Your task to perform on an android device: What's the time? Image 0: 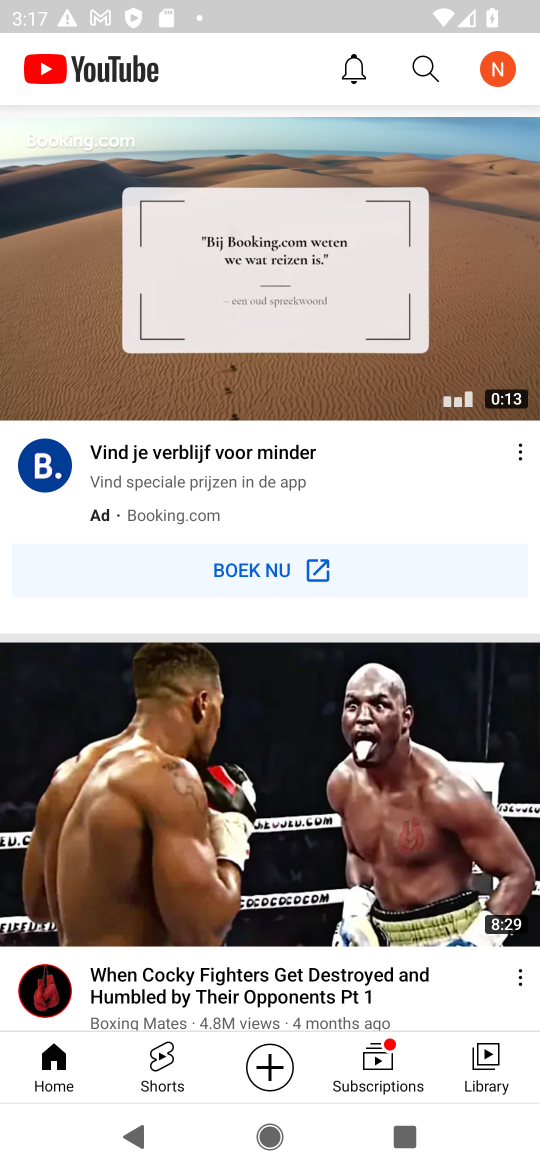
Step 0: press home button
Your task to perform on an android device: What's the time? Image 1: 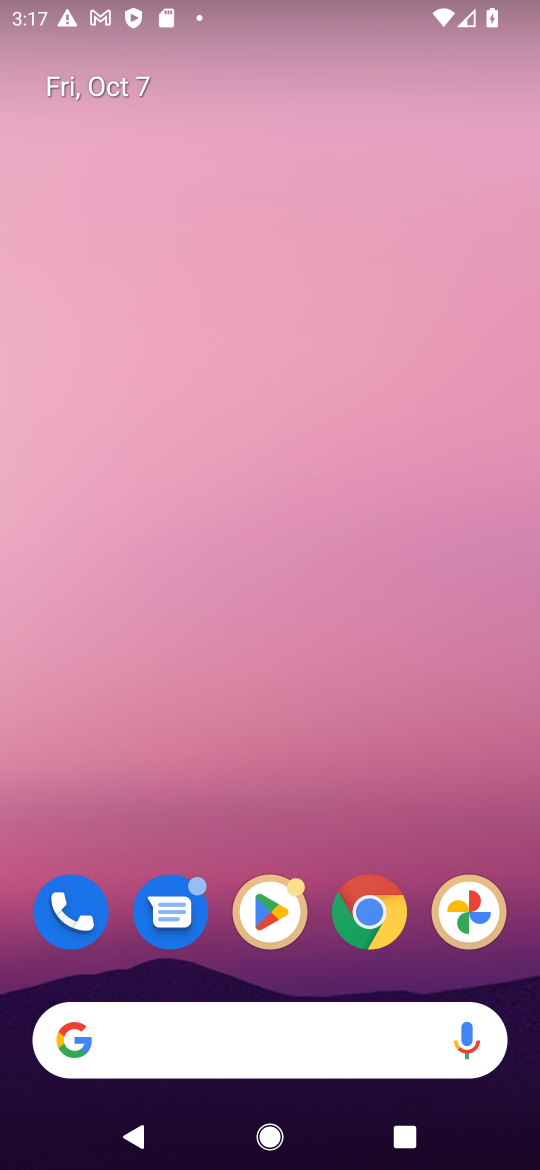
Step 1: drag from (125, 946) to (192, 416)
Your task to perform on an android device: What's the time? Image 2: 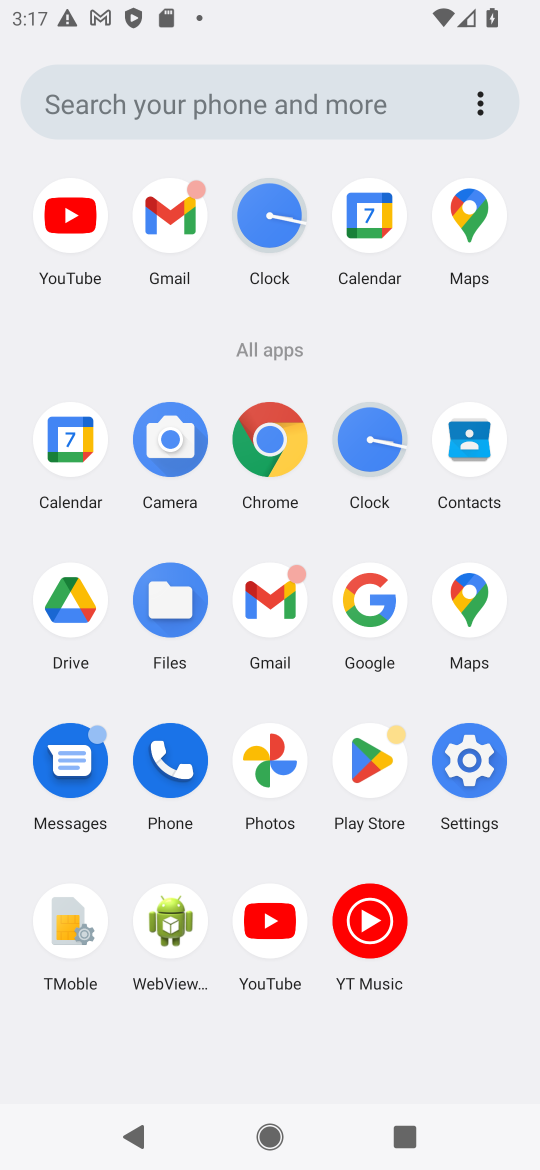
Step 2: click (346, 588)
Your task to perform on an android device: What's the time? Image 3: 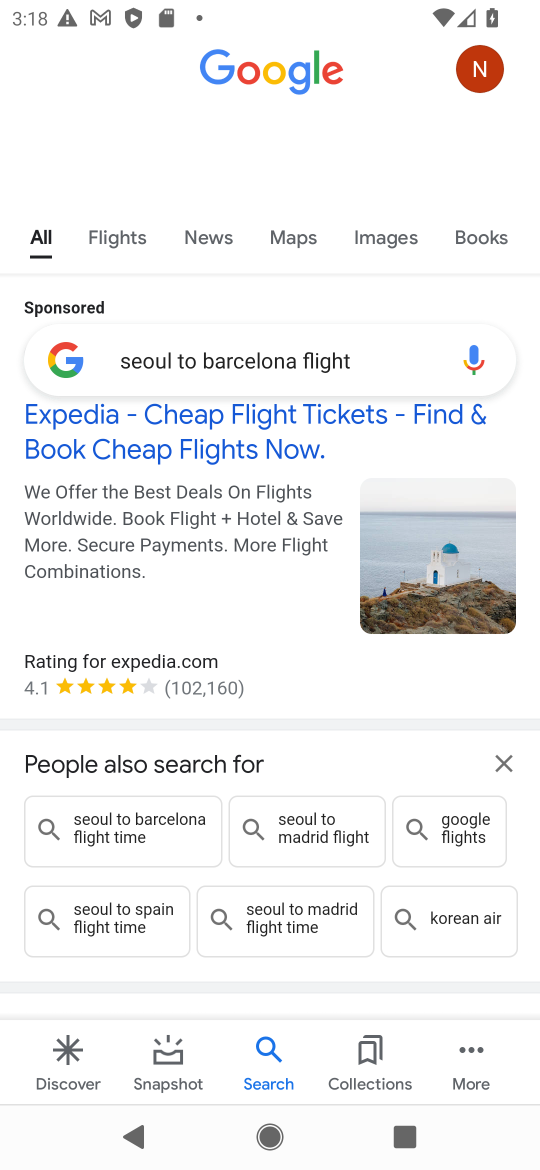
Step 3: click (374, 343)
Your task to perform on an android device: What's the time? Image 4: 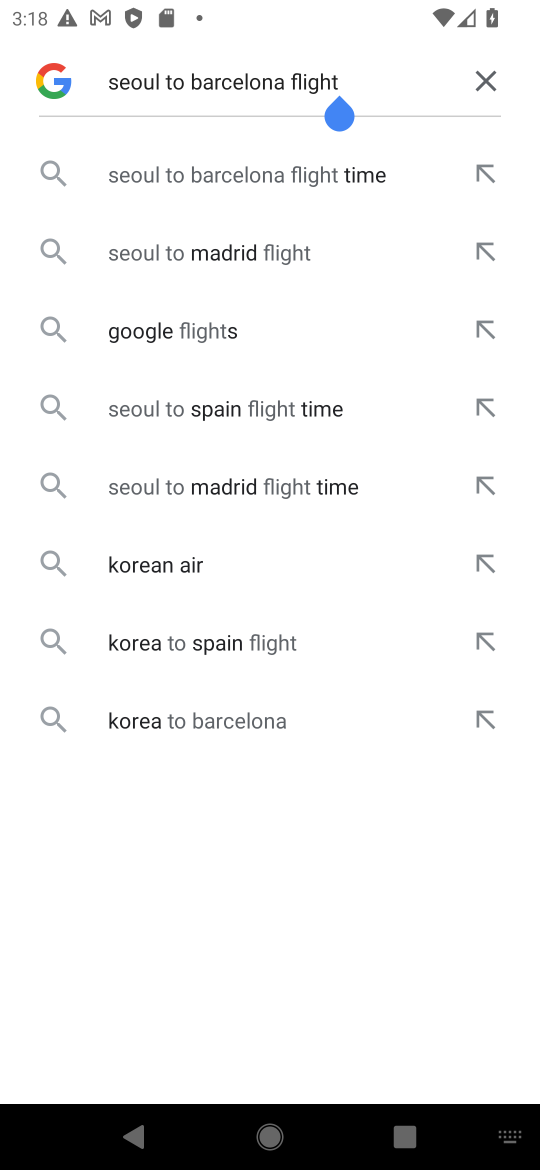
Step 4: click (489, 72)
Your task to perform on an android device: What's the time? Image 5: 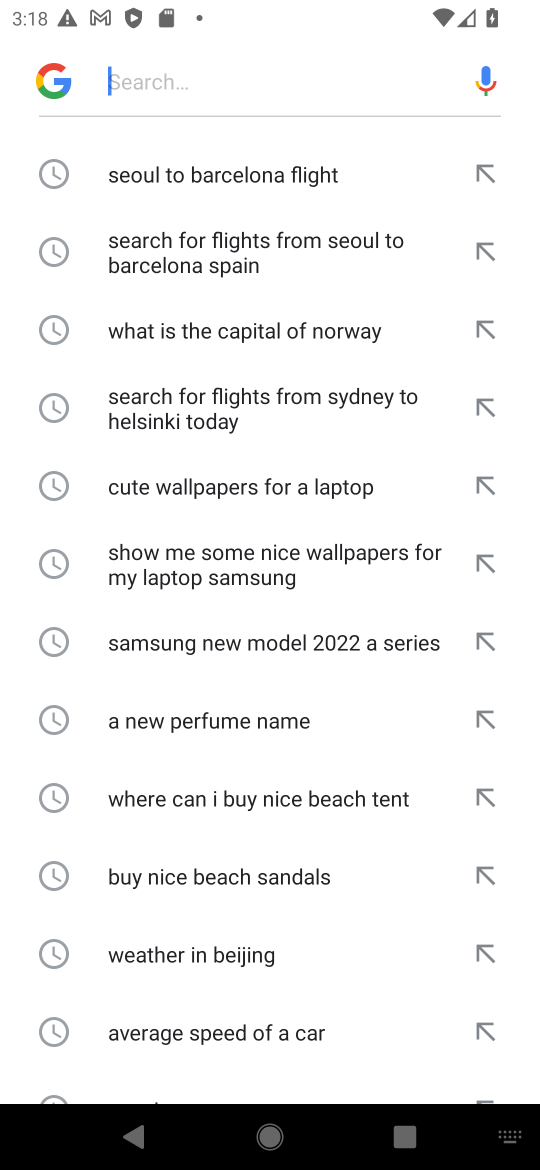
Step 5: click (197, 59)
Your task to perform on an android device: What's the time? Image 6: 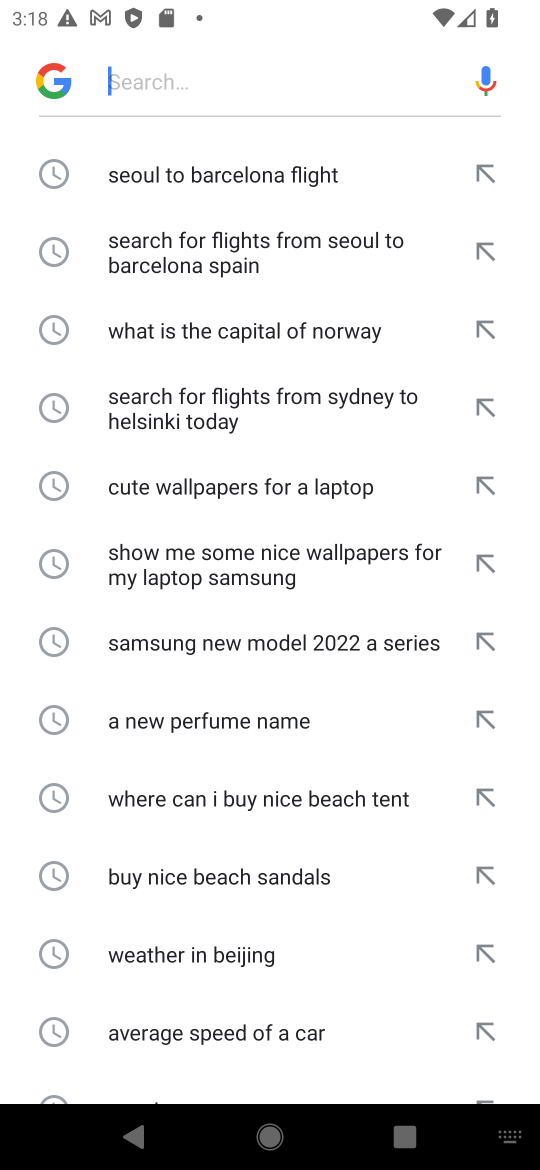
Step 6: type "What's the time? "
Your task to perform on an android device: What's the time? Image 7: 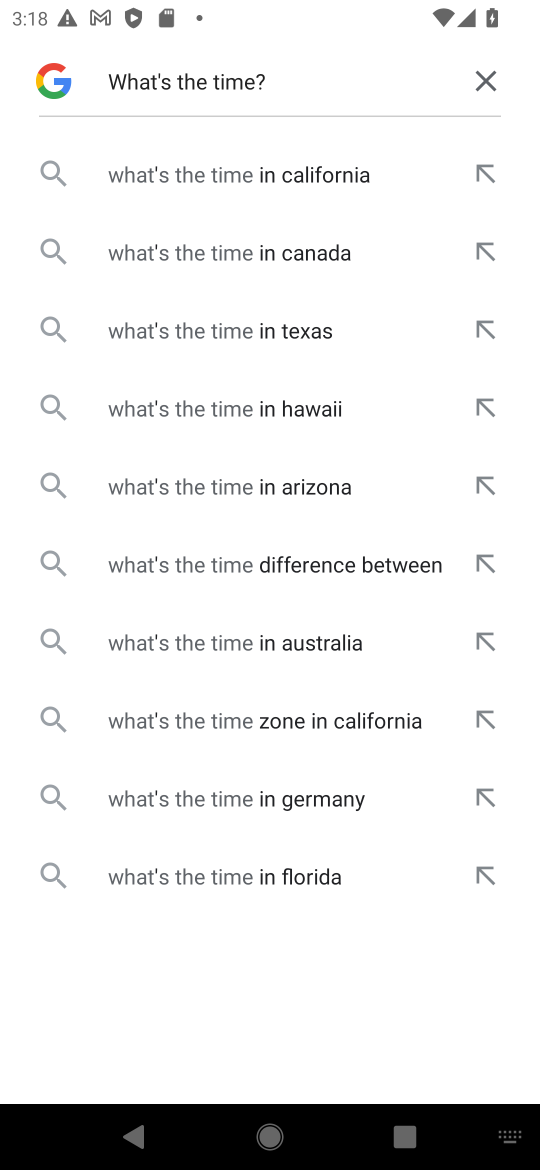
Step 7: press home button
Your task to perform on an android device: What's the time? Image 8: 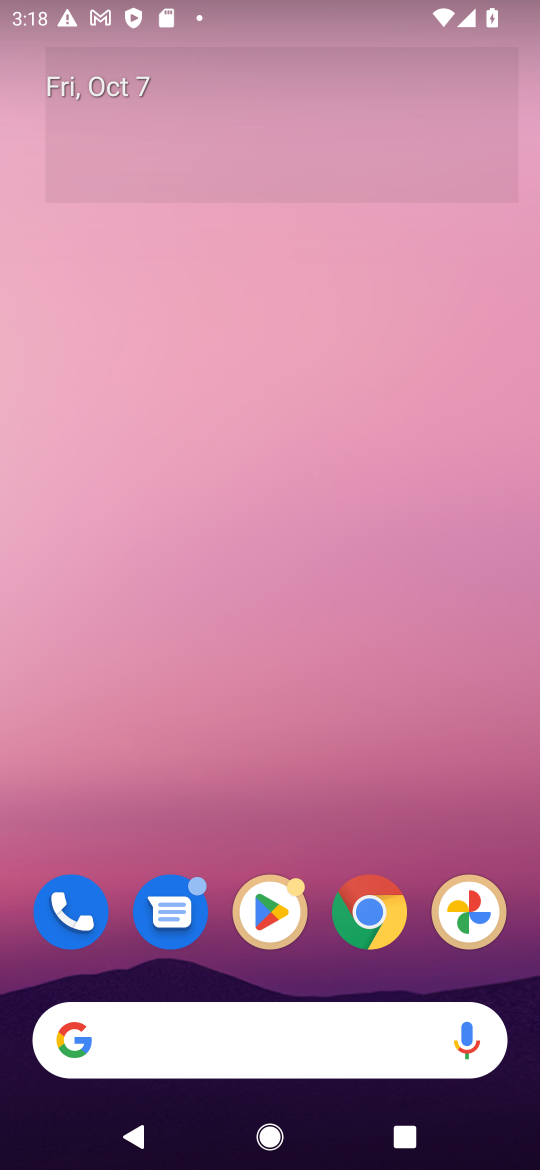
Step 8: drag from (296, 947) to (350, 299)
Your task to perform on an android device: What's the time? Image 9: 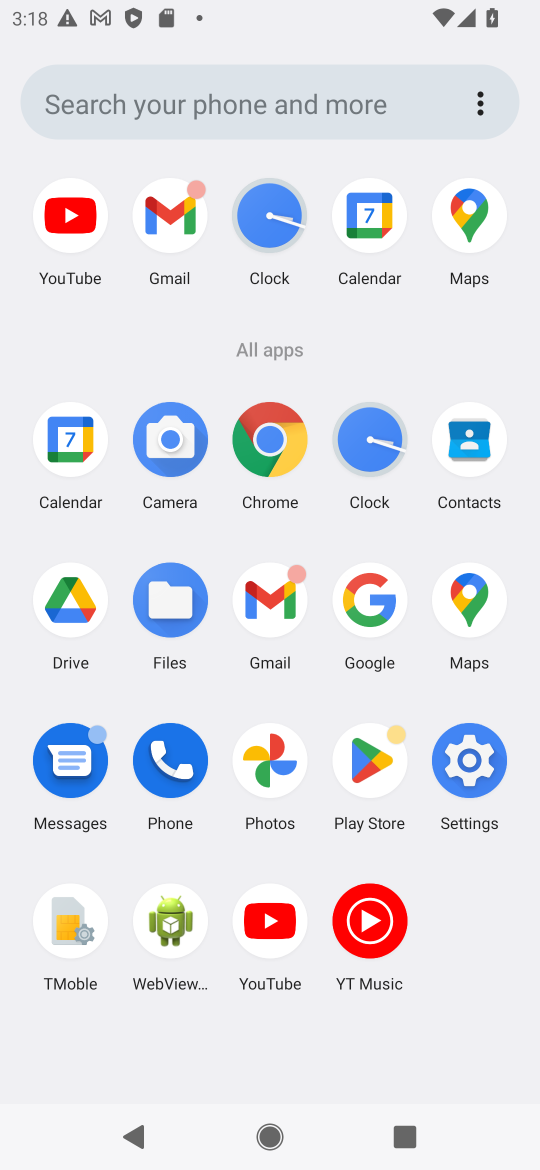
Step 9: click (384, 420)
Your task to perform on an android device: What's the time? Image 10: 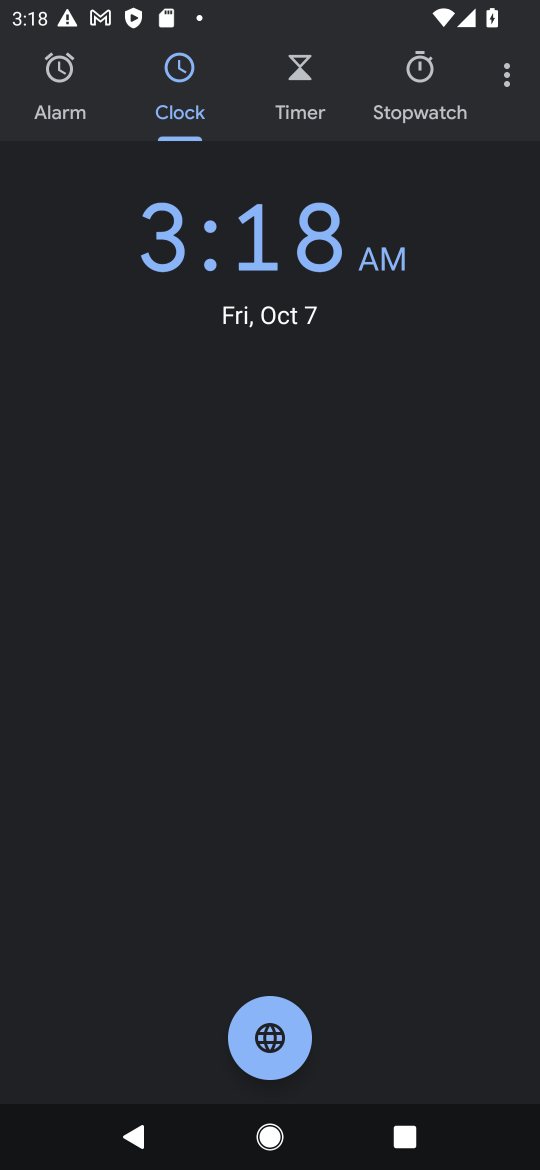
Step 10: task complete